Your task to perform on an android device: Show me the alarms in the clock app Image 0: 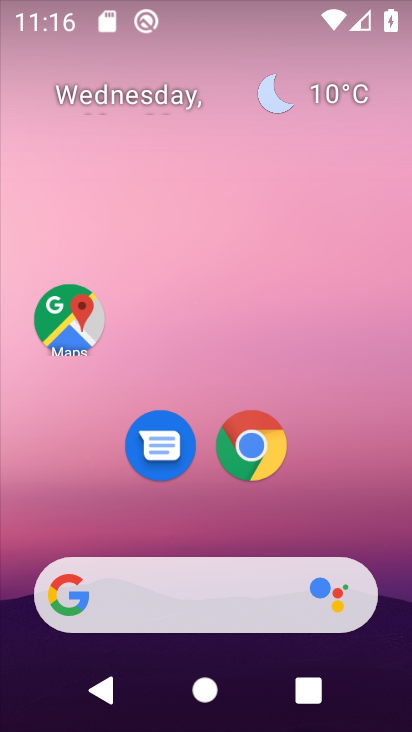
Step 0: drag from (210, 515) to (287, 50)
Your task to perform on an android device: Show me the alarms in the clock app Image 1: 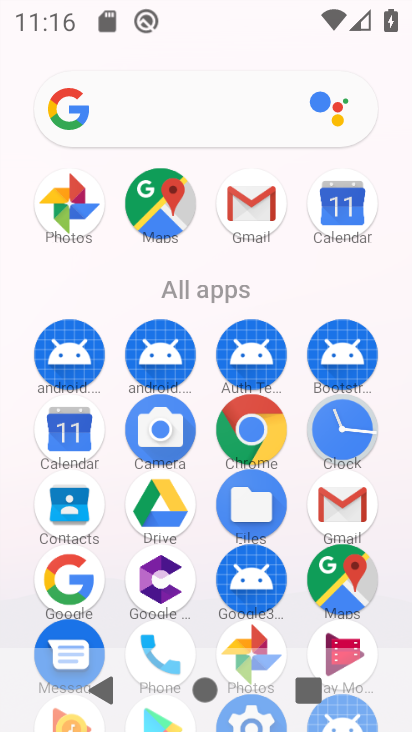
Step 1: click (351, 429)
Your task to perform on an android device: Show me the alarms in the clock app Image 2: 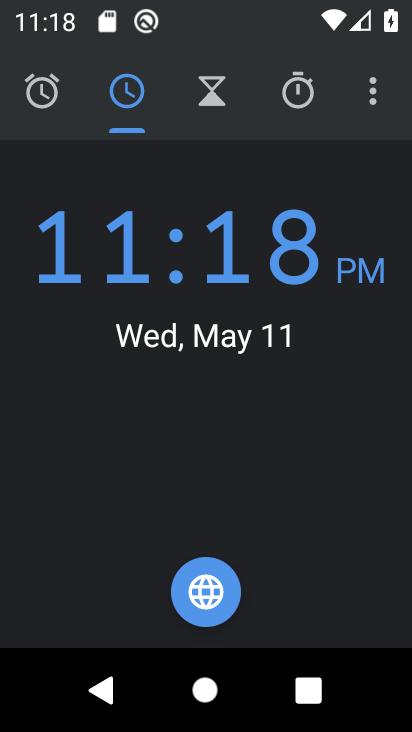
Step 2: click (45, 96)
Your task to perform on an android device: Show me the alarms in the clock app Image 3: 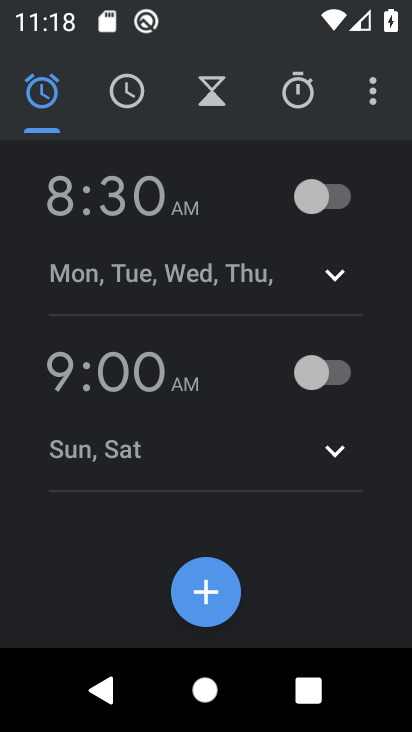
Step 3: task complete